Your task to perform on an android device: change notification settings in the gmail app Image 0: 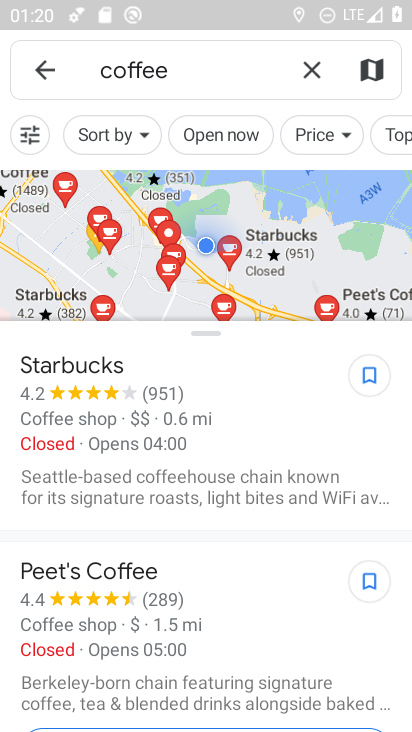
Step 0: press home button
Your task to perform on an android device: change notification settings in the gmail app Image 1: 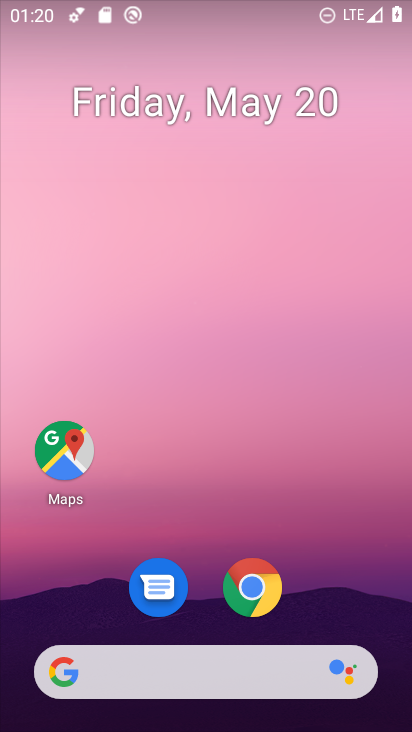
Step 1: drag from (352, 555) to (318, 94)
Your task to perform on an android device: change notification settings in the gmail app Image 2: 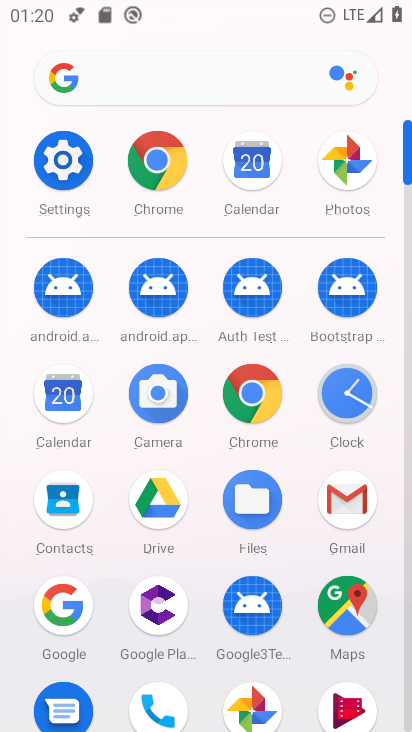
Step 2: click (358, 495)
Your task to perform on an android device: change notification settings in the gmail app Image 3: 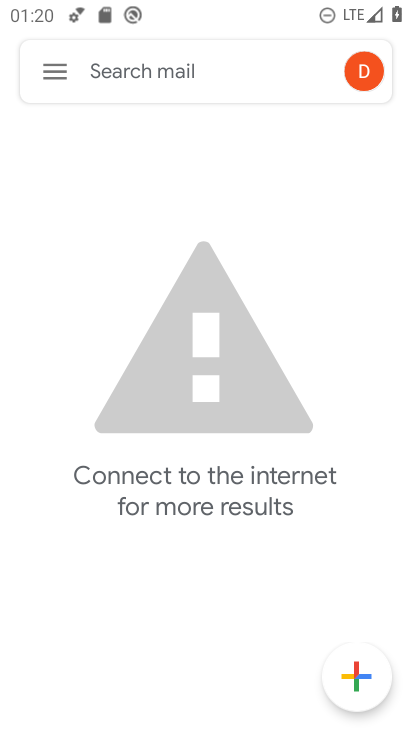
Step 3: click (58, 73)
Your task to perform on an android device: change notification settings in the gmail app Image 4: 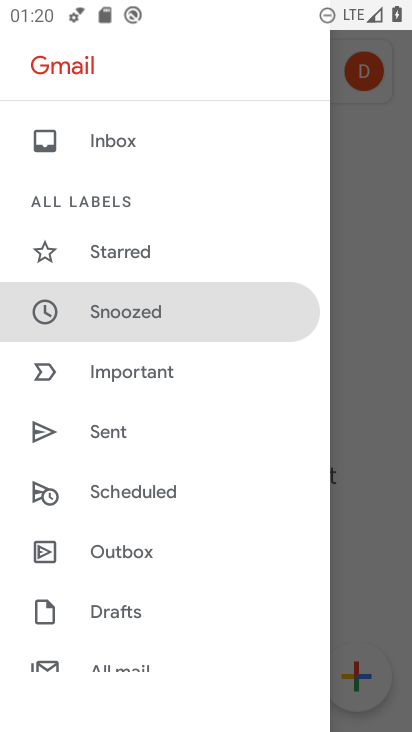
Step 4: drag from (249, 521) to (189, 220)
Your task to perform on an android device: change notification settings in the gmail app Image 5: 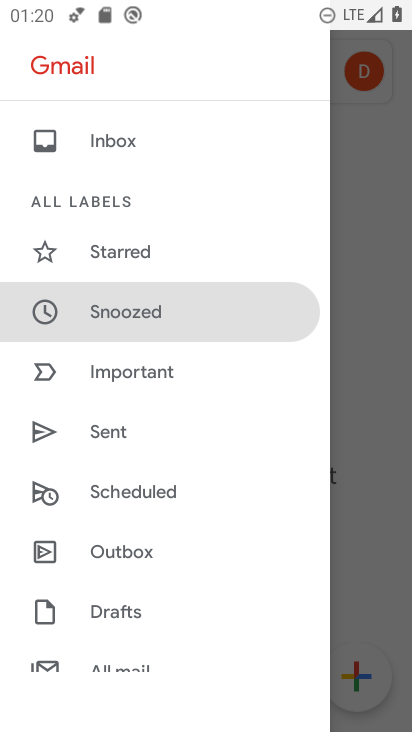
Step 5: drag from (251, 585) to (251, 351)
Your task to perform on an android device: change notification settings in the gmail app Image 6: 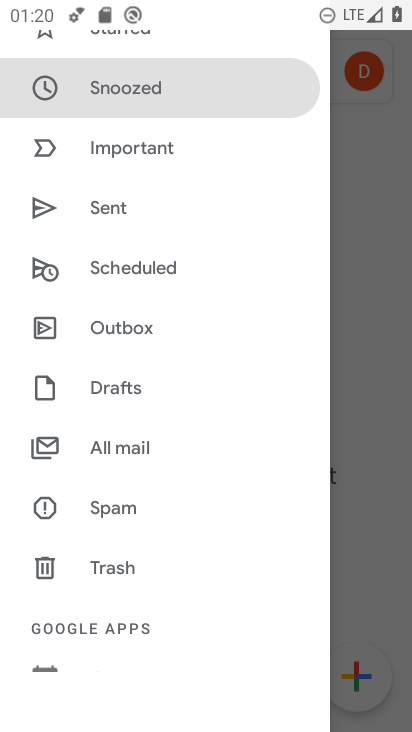
Step 6: drag from (282, 621) to (272, 412)
Your task to perform on an android device: change notification settings in the gmail app Image 7: 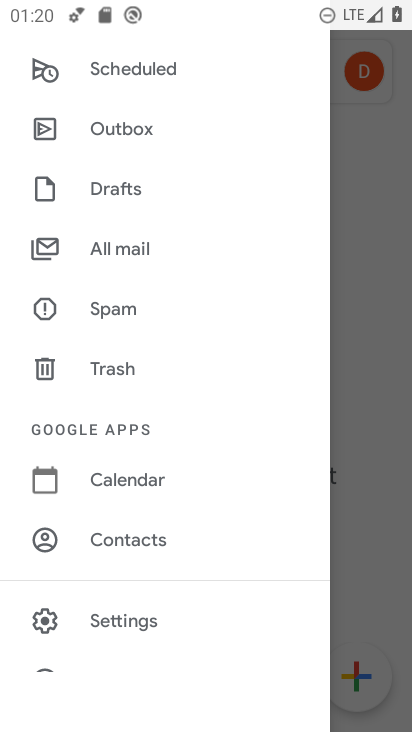
Step 7: drag from (263, 570) to (259, 439)
Your task to perform on an android device: change notification settings in the gmail app Image 8: 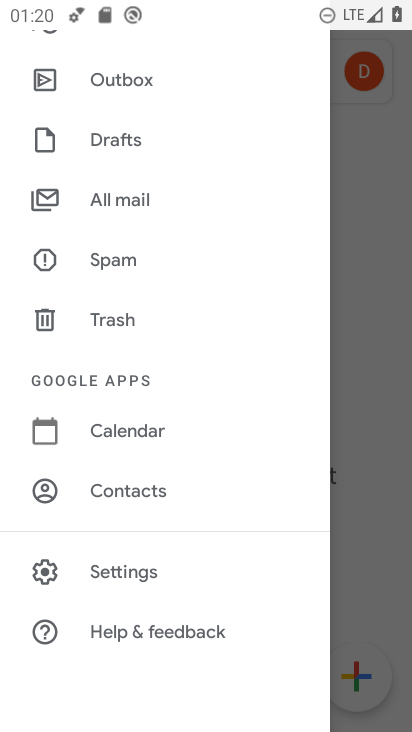
Step 8: click (185, 575)
Your task to perform on an android device: change notification settings in the gmail app Image 9: 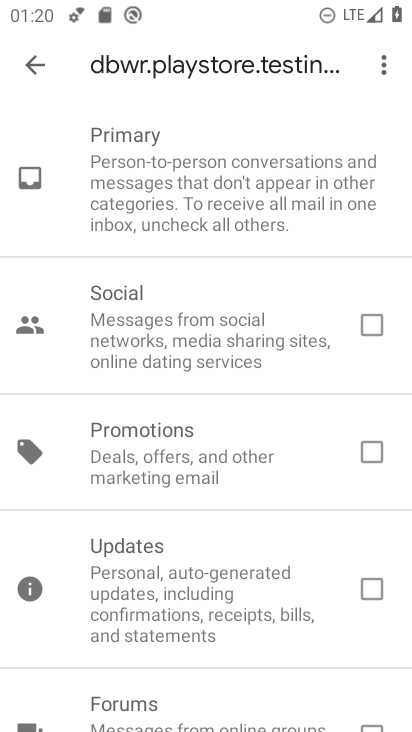
Step 9: click (34, 66)
Your task to perform on an android device: change notification settings in the gmail app Image 10: 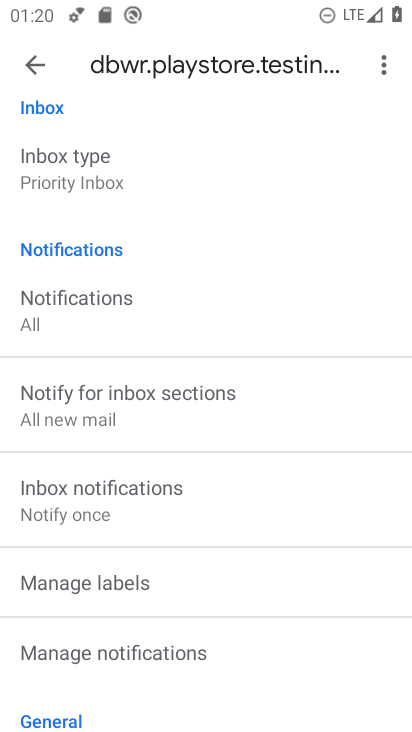
Step 10: drag from (231, 476) to (219, 341)
Your task to perform on an android device: change notification settings in the gmail app Image 11: 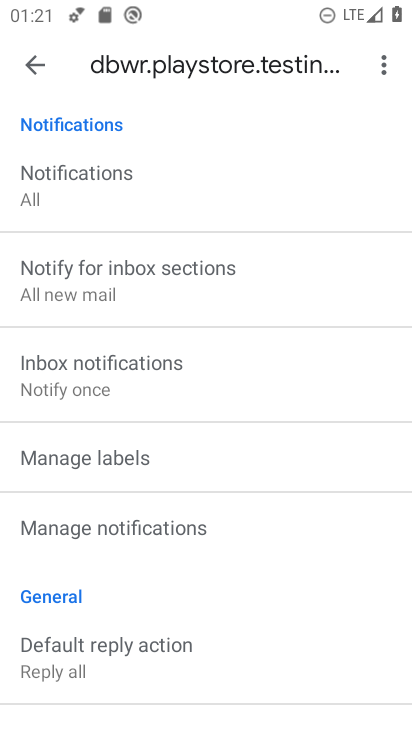
Step 11: drag from (261, 511) to (257, 389)
Your task to perform on an android device: change notification settings in the gmail app Image 12: 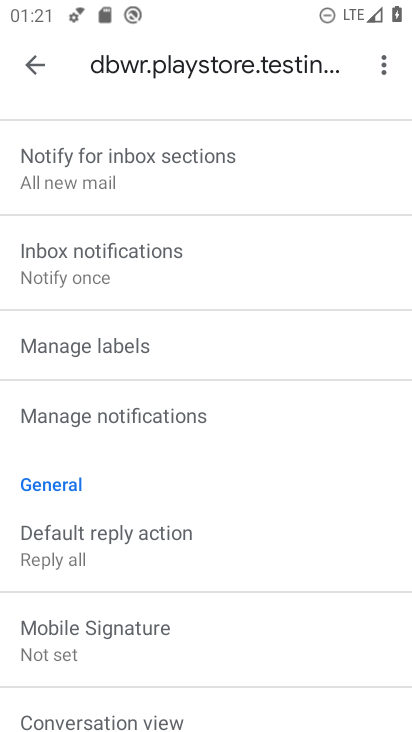
Step 12: drag from (282, 557) to (268, 451)
Your task to perform on an android device: change notification settings in the gmail app Image 13: 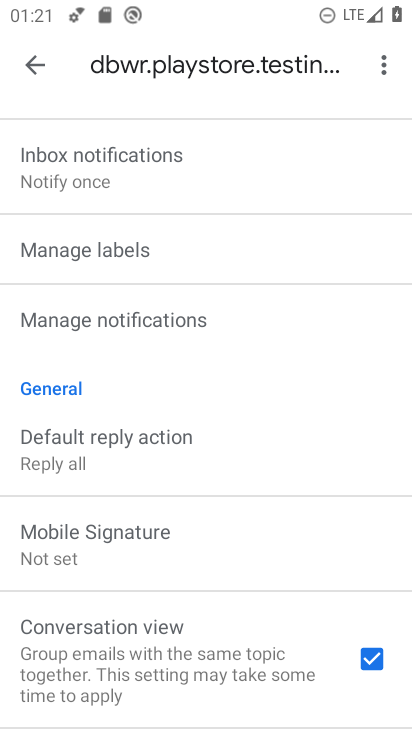
Step 13: click (236, 326)
Your task to perform on an android device: change notification settings in the gmail app Image 14: 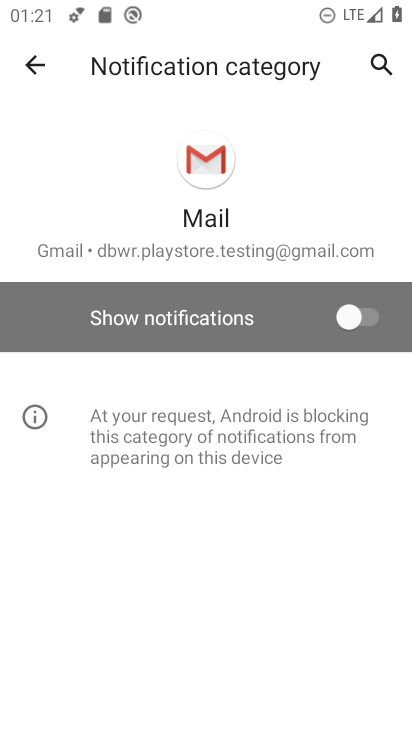
Step 14: click (357, 329)
Your task to perform on an android device: change notification settings in the gmail app Image 15: 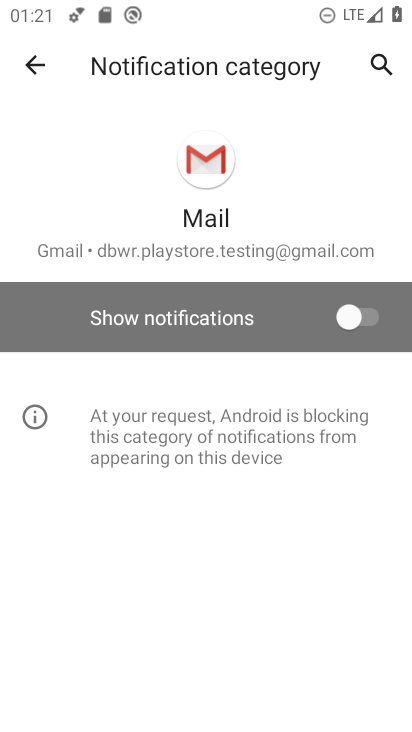
Step 15: click (341, 324)
Your task to perform on an android device: change notification settings in the gmail app Image 16: 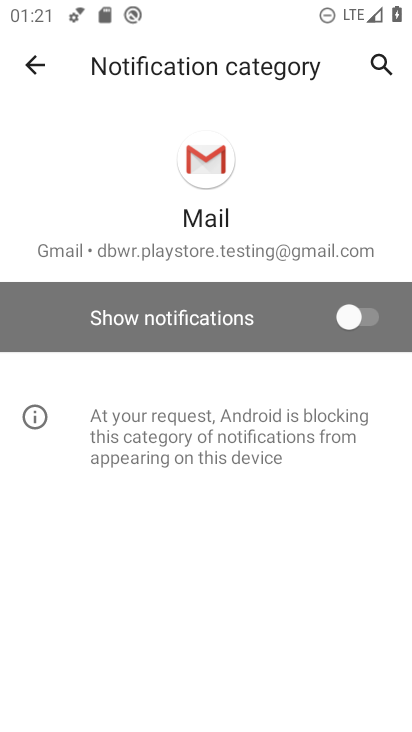
Step 16: task complete